Your task to perform on an android device: set an alarm Image 0: 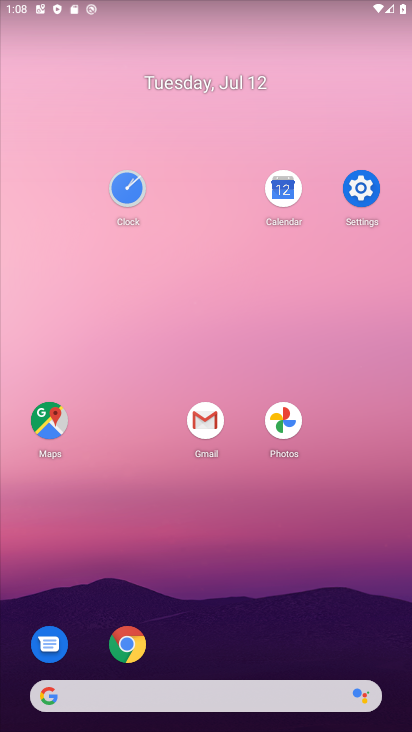
Step 0: click (132, 190)
Your task to perform on an android device: set an alarm Image 1: 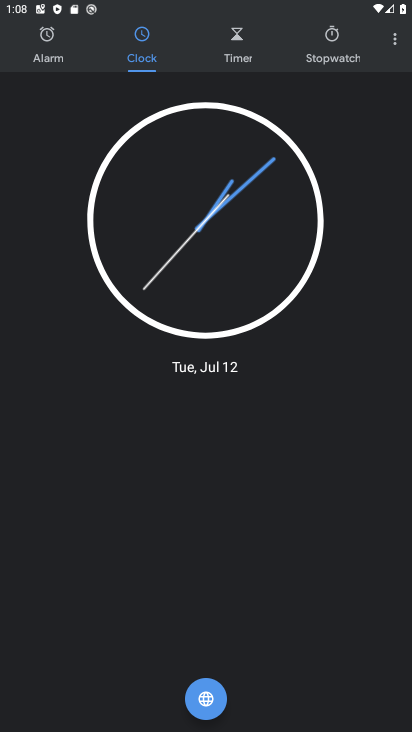
Step 1: click (46, 18)
Your task to perform on an android device: set an alarm Image 2: 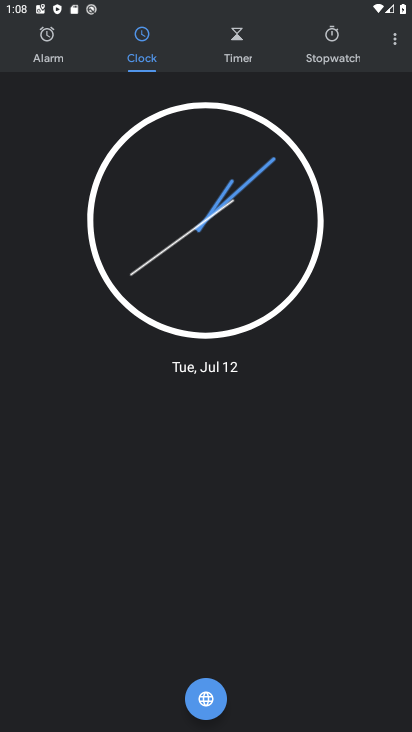
Step 2: click (45, 38)
Your task to perform on an android device: set an alarm Image 3: 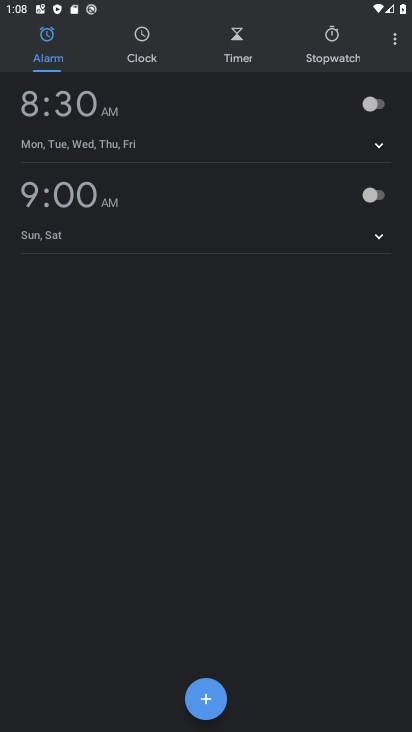
Step 3: click (386, 101)
Your task to perform on an android device: set an alarm Image 4: 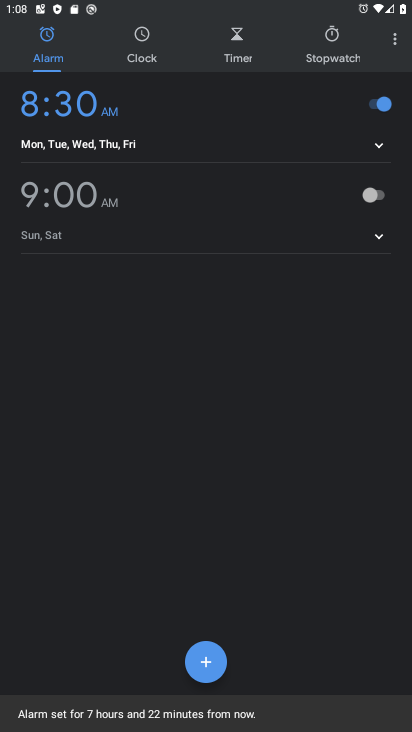
Step 4: task complete